Your task to perform on an android device: change notification settings in the gmail app Image 0: 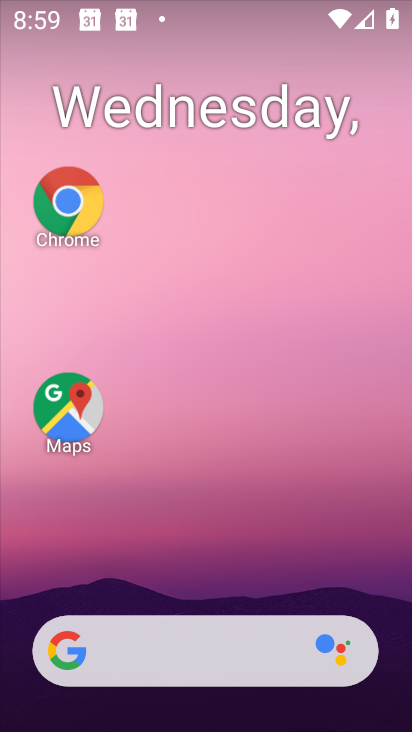
Step 0: drag from (226, 605) to (206, 48)
Your task to perform on an android device: change notification settings in the gmail app Image 1: 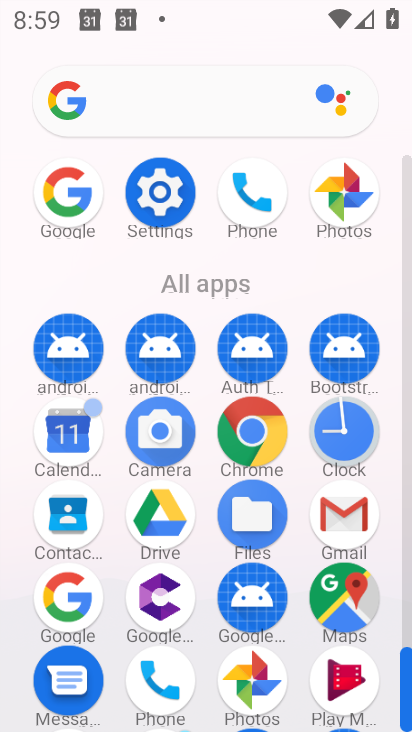
Step 1: click (329, 498)
Your task to perform on an android device: change notification settings in the gmail app Image 2: 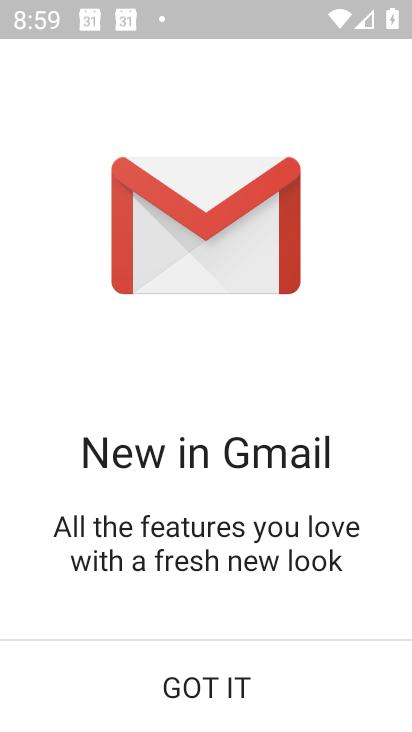
Step 2: click (148, 686)
Your task to perform on an android device: change notification settings in the gmail app Image 3: 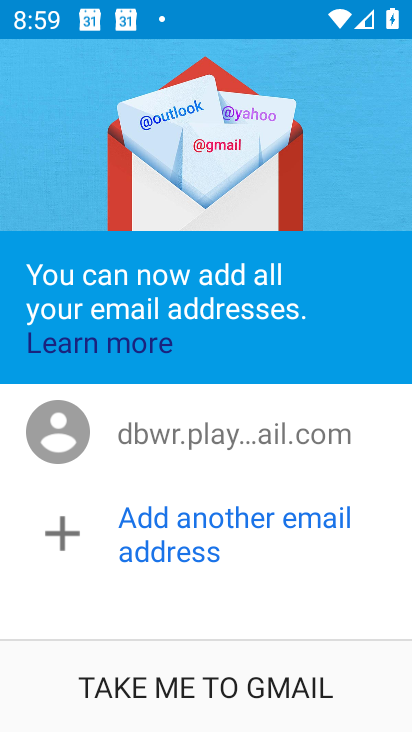
Step 3: click (148, 686)
Your task to perform on an android device: change notification settings in the gmail app Image 4: 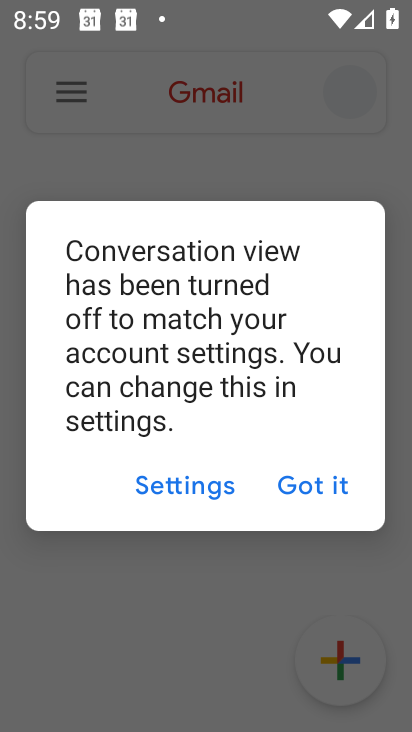
Step 4: click (148, 686)
Your task to perform on an android device: change notification settings in the gmail app Image 5: 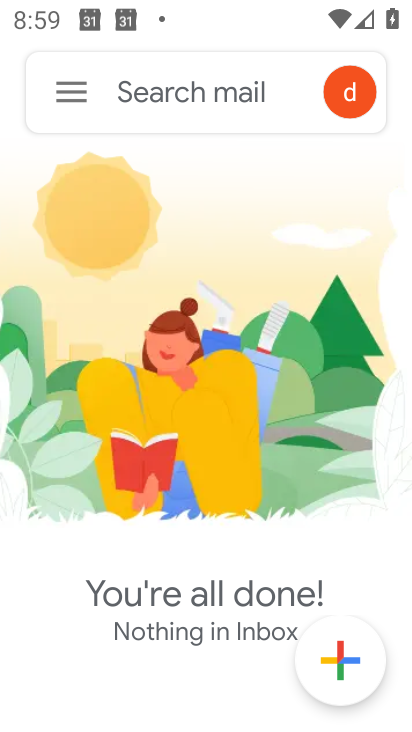
Step 5: click (69, 86)
Your task to perform on an android device: change notification settings in the gmail app Image 6: 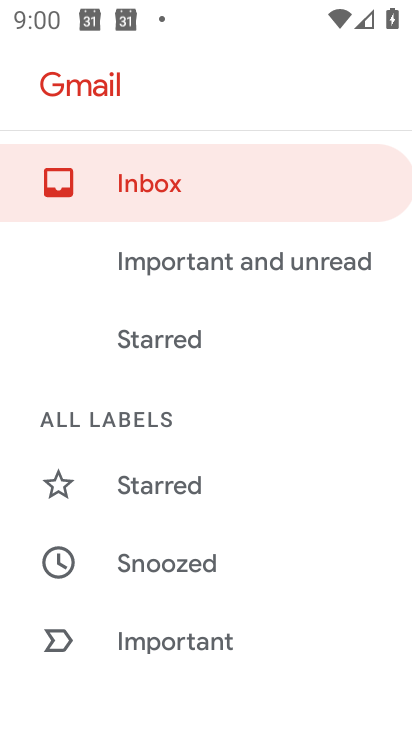
Step 6: drag from (225, 598) to (209, 168)
Your task to perform on an android device: change notification settings in the gmail app Image 7: 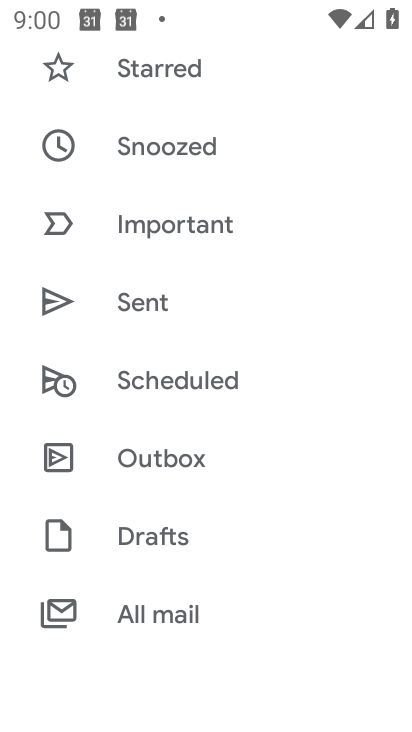
Step 7: drag from (268, 549) to (225, 231)
Your task to perform on an android device: change notification settings in the gmail app Image 8: 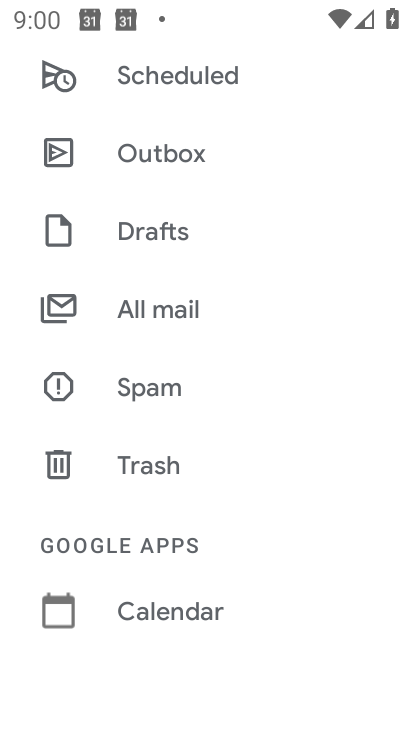
Step 8: drag from (176, 592) to (130, 235)
Your task to perform on an android device: change notification settings in the gmail app Image 9: 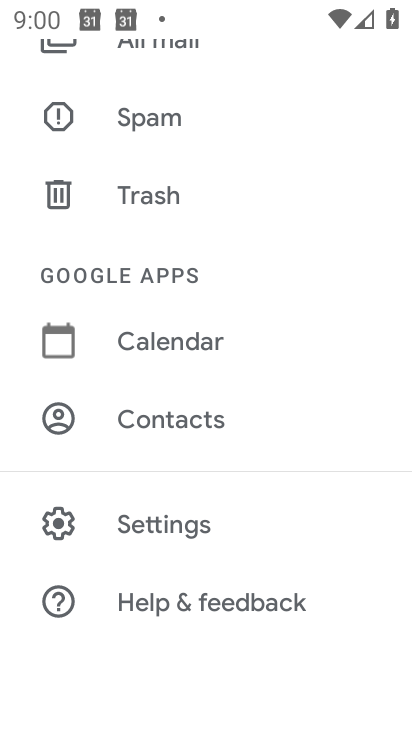
Step 9: click (135, 524)
Your task to perform on an android device: change notification settings in the gmail app Image 10: 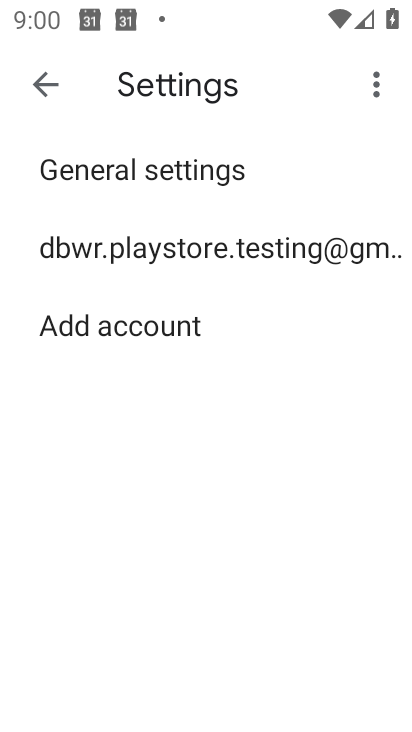
Step 10: click (113, 188)
Your task to perform on an android device: change notification settings in the gmail app Image 11: 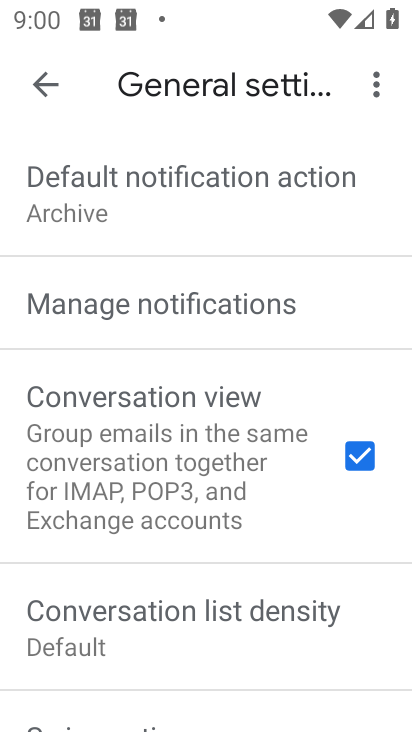
Step 11: click (110, 274)
Your task to perform on an android device: change notification settings in the gmail app Image 12: 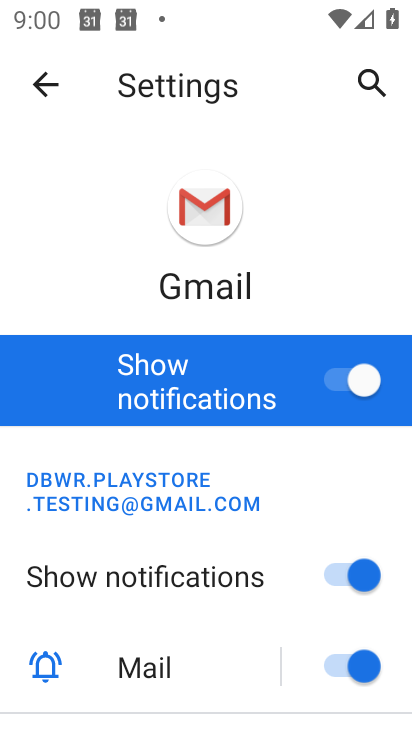
Step 12: click (362, 404)
Your task to perform on an android device: change notification settings in the gmail app Image 13: 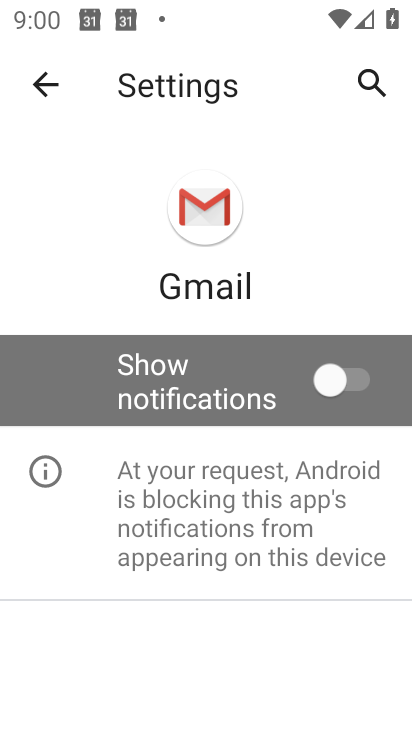
Step 13: task complete